Your task to perform on an android device: check battery use Image 0: 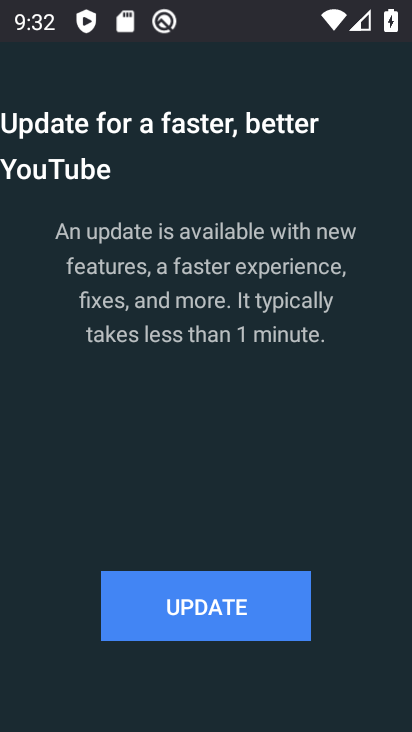
Step 0: press back button
Your task to perform on an android device: check battery use Image 1: 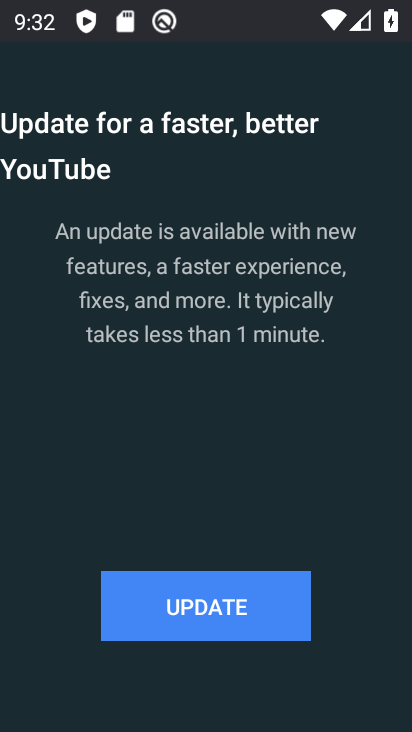
Step 1: press back button
Your task to perform on an android device: check battery use Image 2: 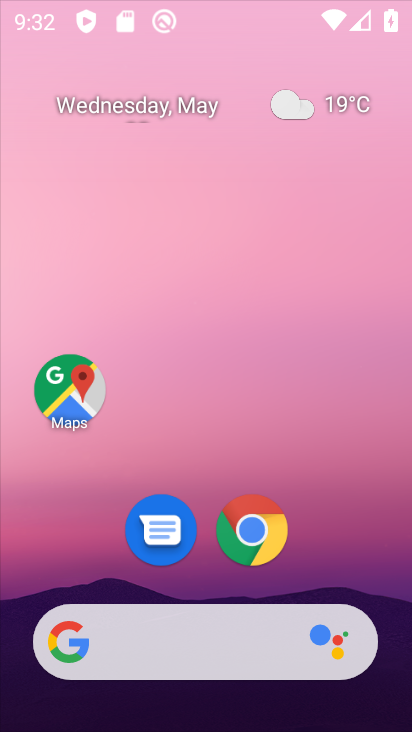
Step 2: press back button
Your task to perform on an android device: check battery use Image 3: 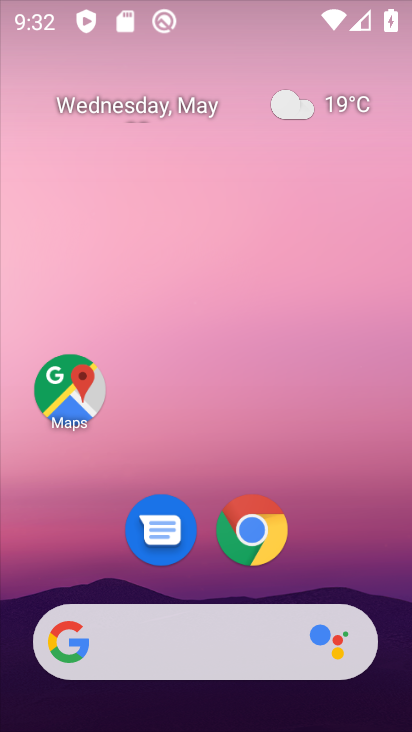
Step 3: press back button
Your task to perform on an android device: check battery use Image 4: 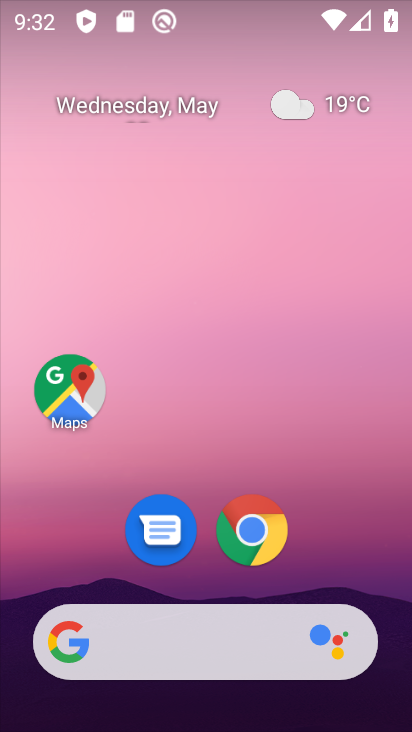
Step 4: press back button
Your task to perform on an android device: check battery use Image 5: 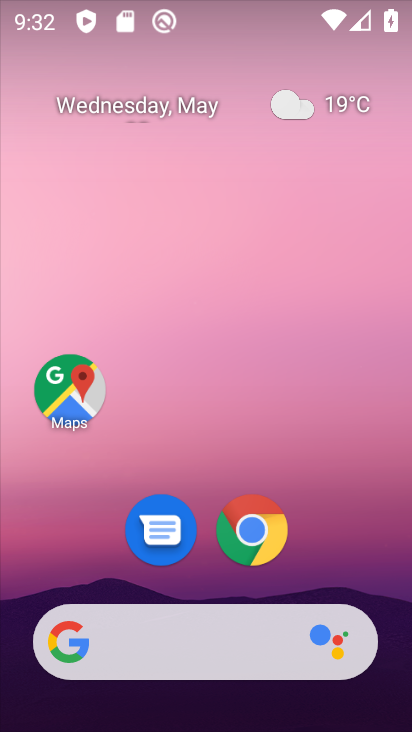
Step 5: drag from (284, 707) to (167, 22)
Your task to perform on an android device: check battery use Image 6: 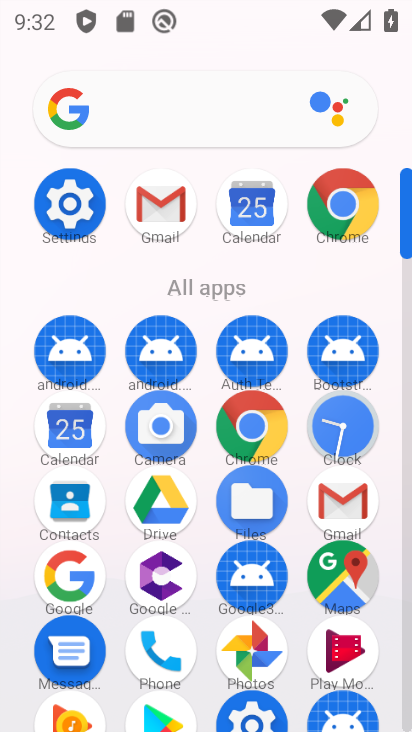
Step 6: click (55, 203)
Your task to perform on an android device: check battery use Image 7: 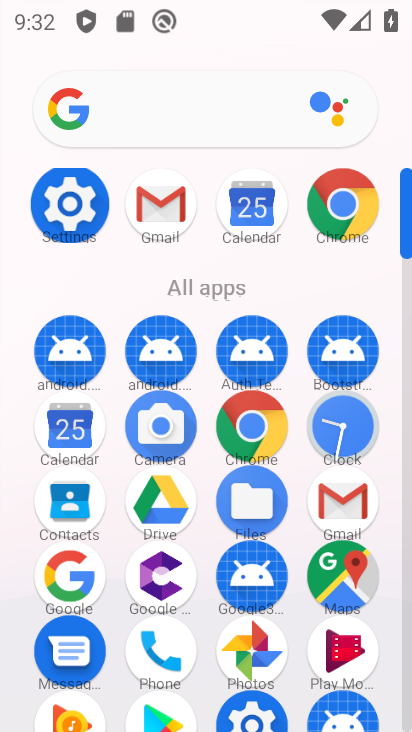
Step 7: click (55, 203)
Your task to perform on an android device: check battery use Image 8: 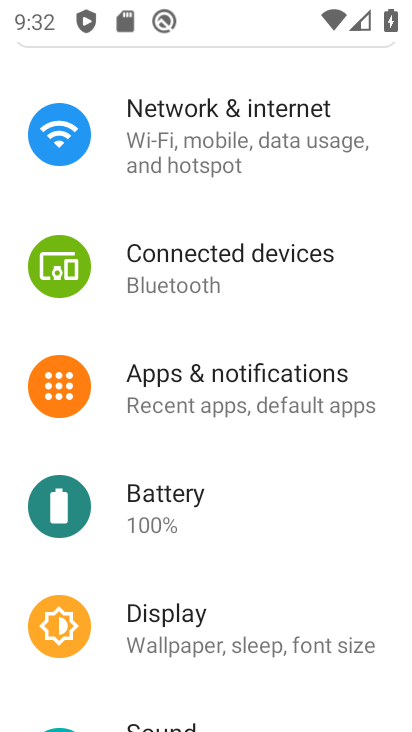
Step 8: click (155, 510)
Your task to perform on an android device: check battery use Image 9: 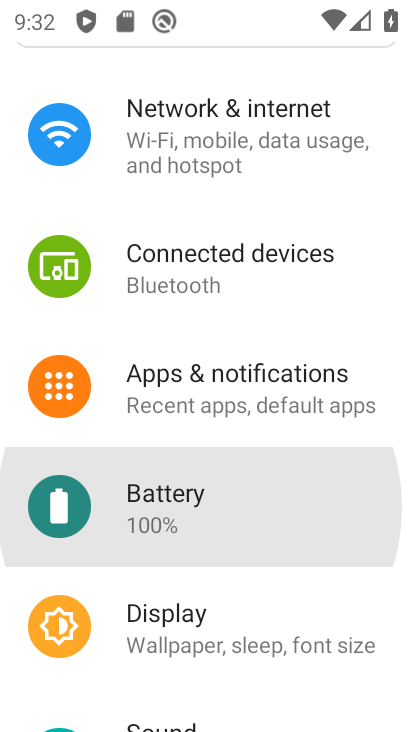
Step 9: click (155, 510)
Your task to perform on an android device: check battery use Image 10: 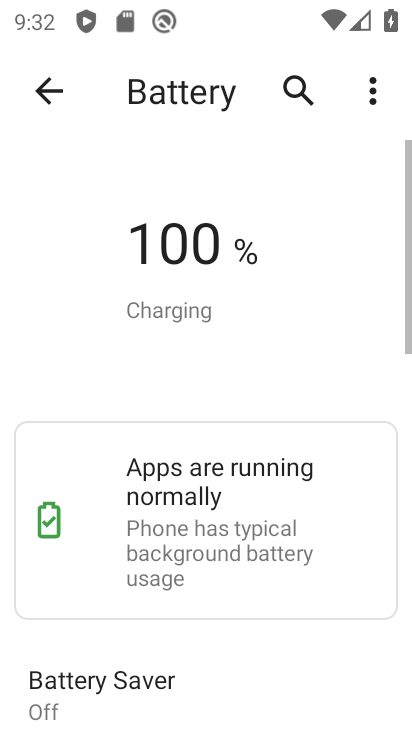
Step 10: click (160, 509)
Your task to perform on an android device: check battery use Image 11: 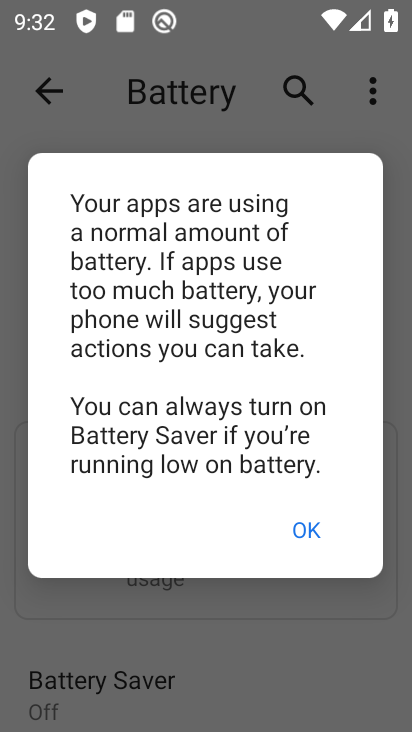
Step 11: click (311, 517)
Your task to perform on an android device: check battery use Image 12: 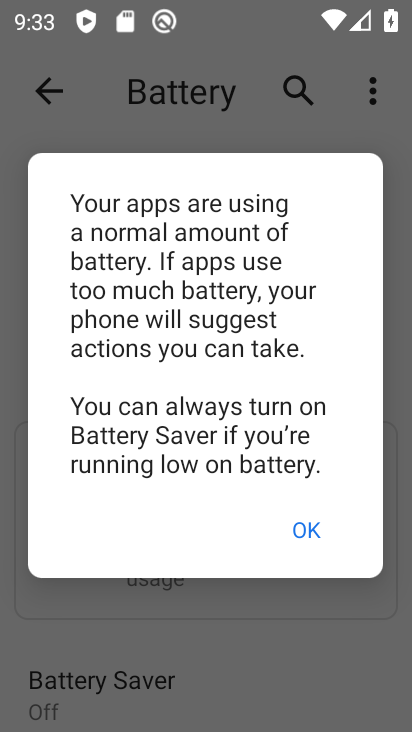
Step 12: click (307, 525)
Your task to perform on an android device: check battery use Image 13: 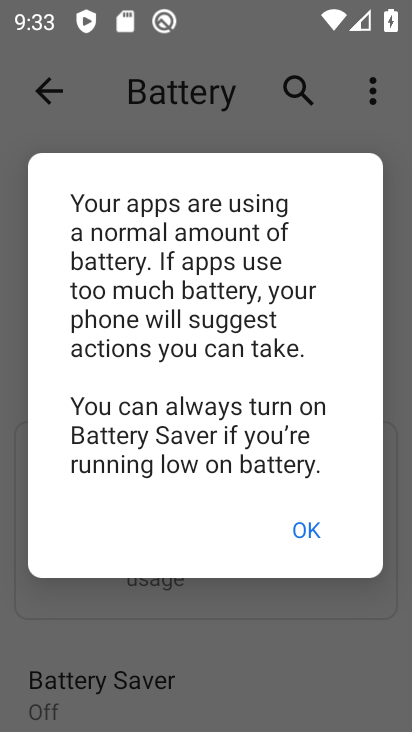
Step 13: click (303, 512)
Your task to perform on an android device: check battery use Image 14: 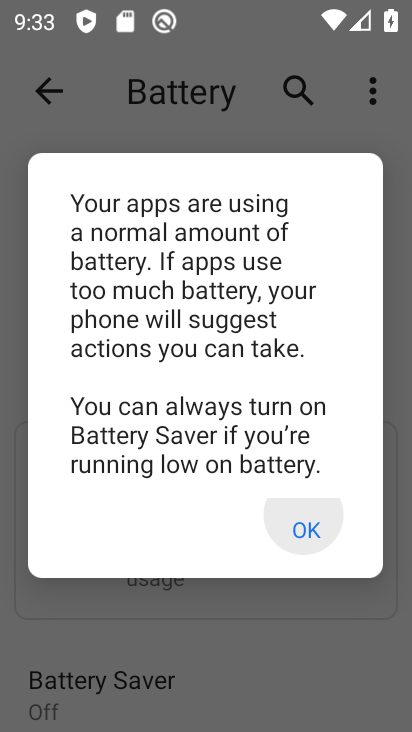
Step 14: click (306, 519)
Your task to perform on an android device: check battery use Image 15: 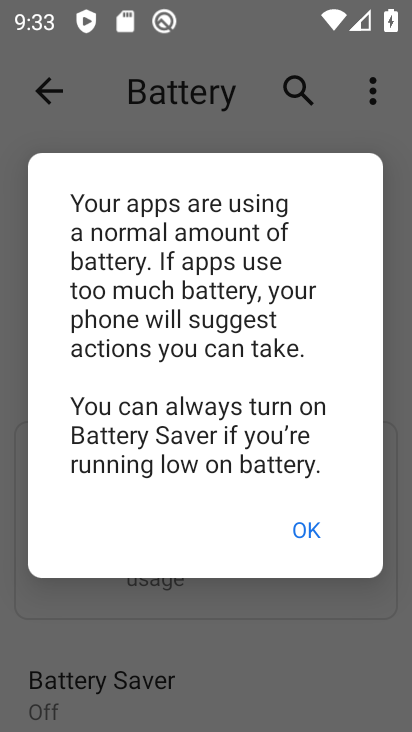
Step 15: click (310, 528)
Your task to perform on an android device: check battery use Image 16: 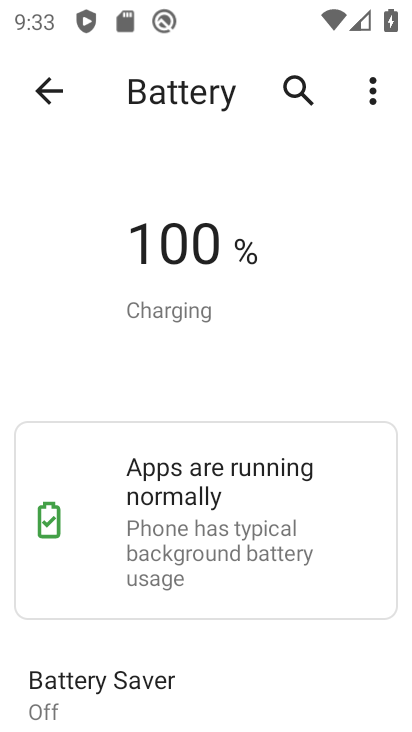
Step 16: task complete